Your task to perform on an android device: What is the news today? Image 0: 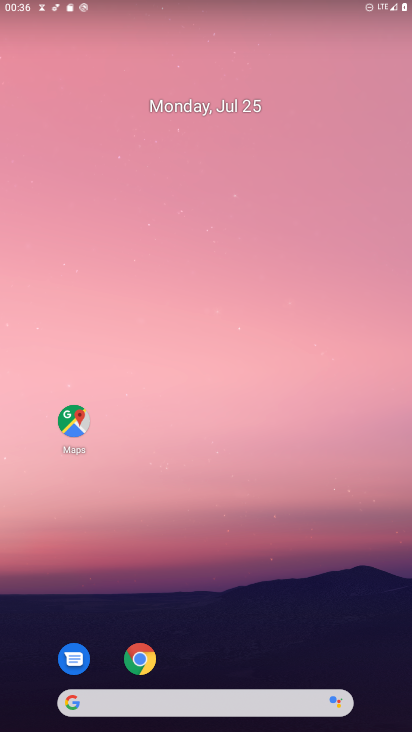
Step 0: drag from (222, 630) to (278, 102)
Your task to perform on an android device: What is the news today? Image 1: 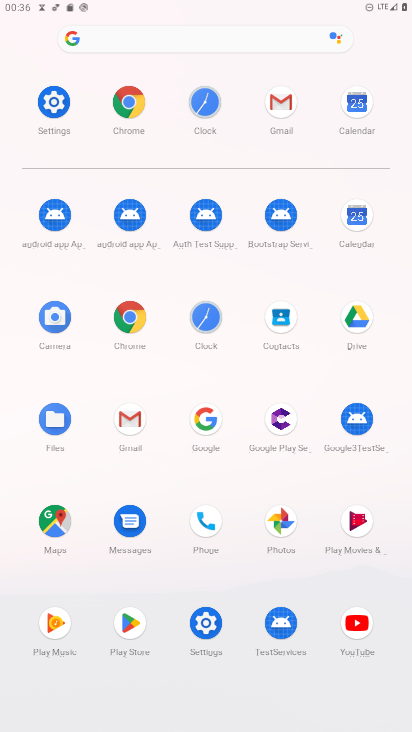
Step 1: click (121, 113)
Your task to perform on an android device: What is the news today? Image 2: 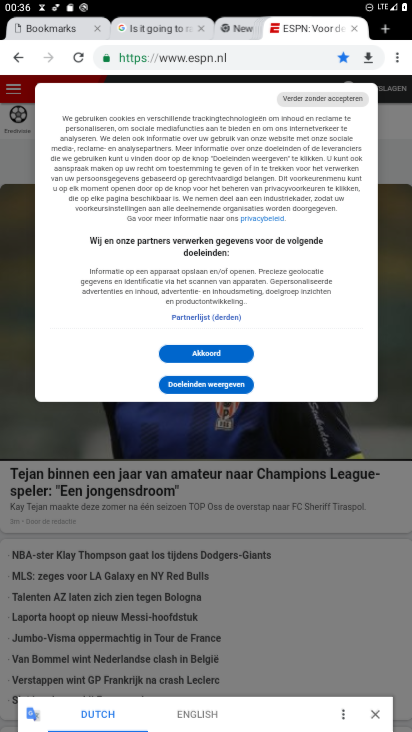
Step 2: click (380, 33)
Your task to perform on an android device: What is the news today? Image 3: 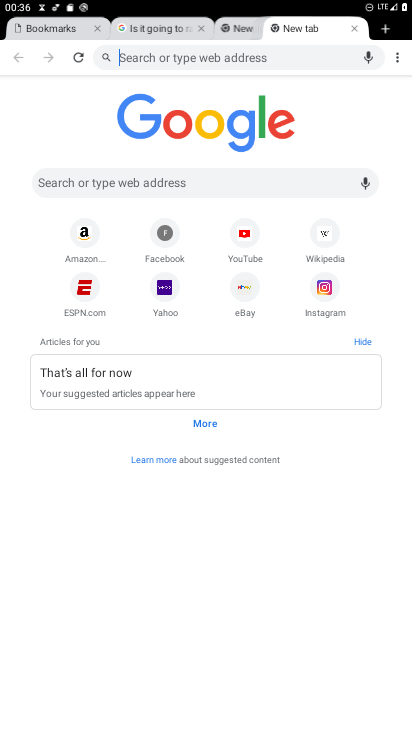
Step 3: click (203, 172)
Your task to perform on an android device: What is the news today? Image 4: 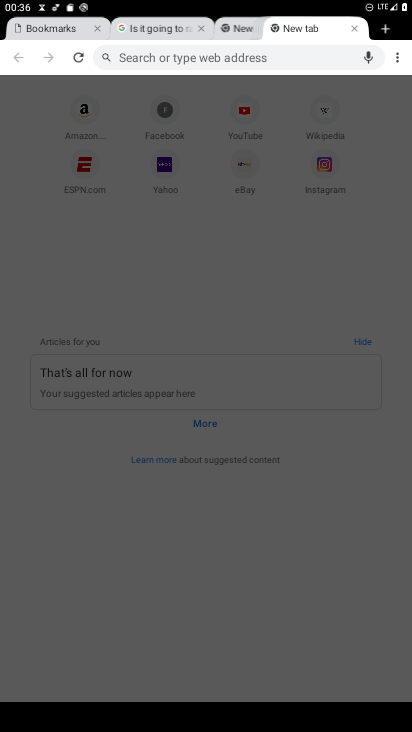
Step 4: type "What is the news today "
Your task to perform on an android device: What is the news today? Image 5: 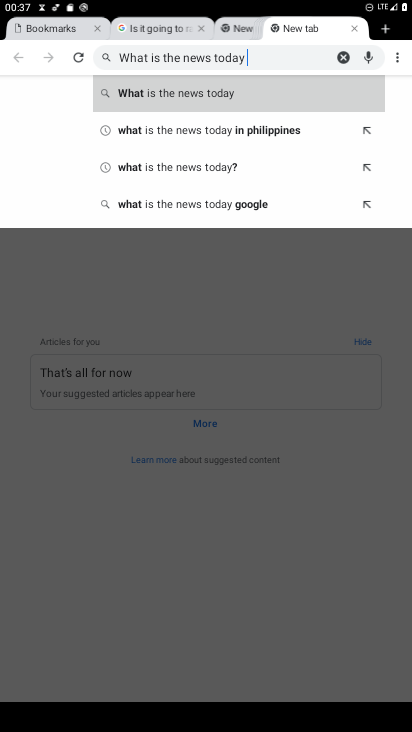
Step 5: click (222, 83)
Your task to perform on an android device: What is the news today? Image 6: 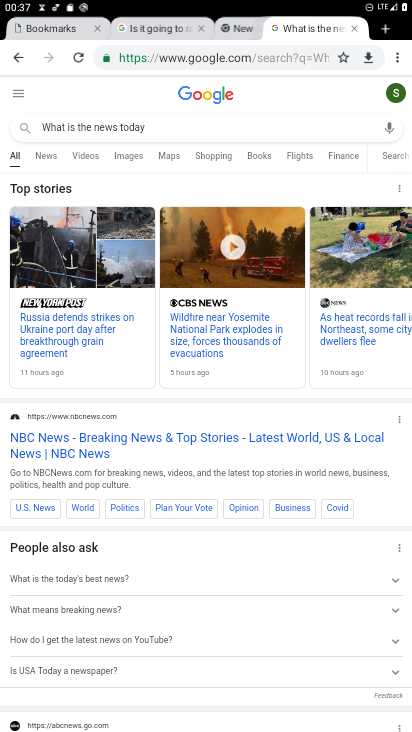
Step 6: task complete